Your task to perform on an android device: turn off smart reply in the gmail app Image 0: 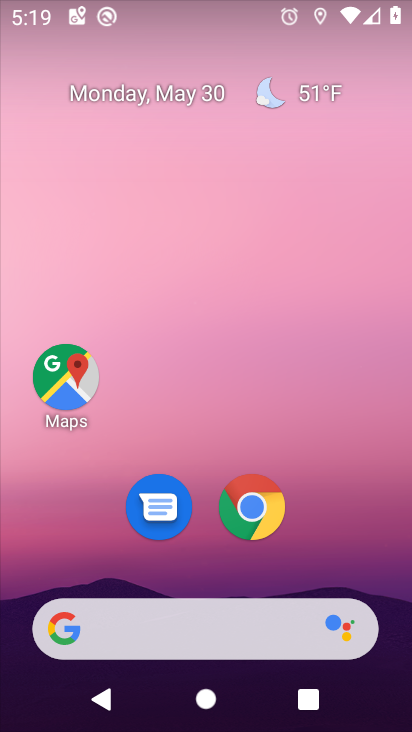
Step 0: drag from (398, 565) to (333, 154)
Your task to perform on an android device: turn off smart reply in the gmail app Image 1: 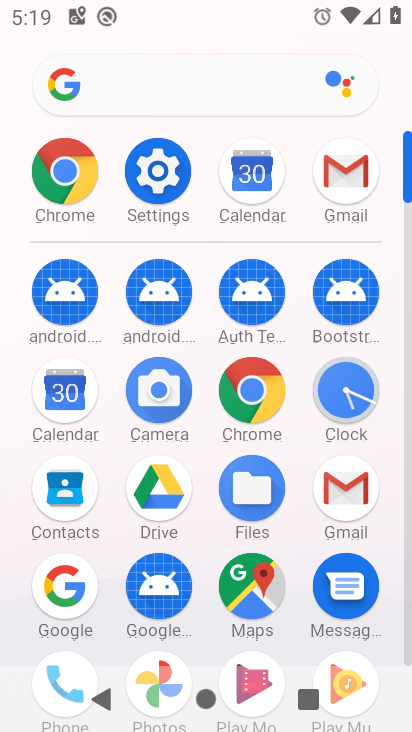
Step 1: click (347, 495)
Your task to perform on an android device: turn off smart reply in the gmail app Image 2: 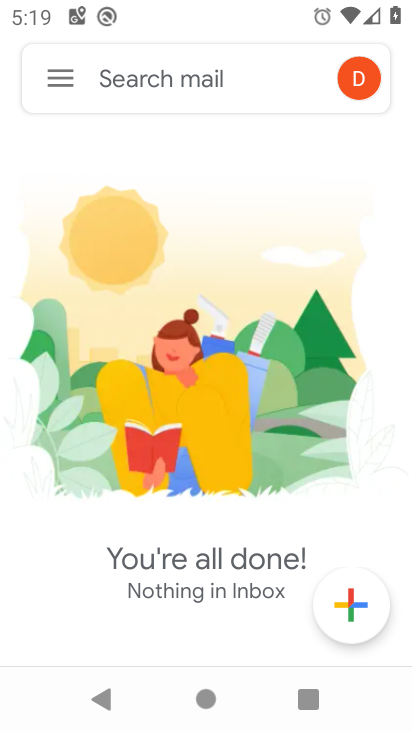
Step 2: click (66, 100)
Your task to perform on an android device: turn off smart reply in the gmail app Image 3: 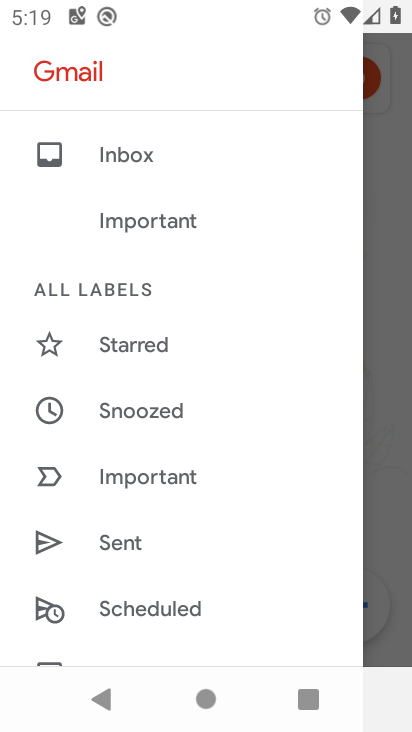
Step 3: drag from (144, 498) to (131, 145)
Your task to perform on an android device: turn off smart reply in the gmail app Image 4: 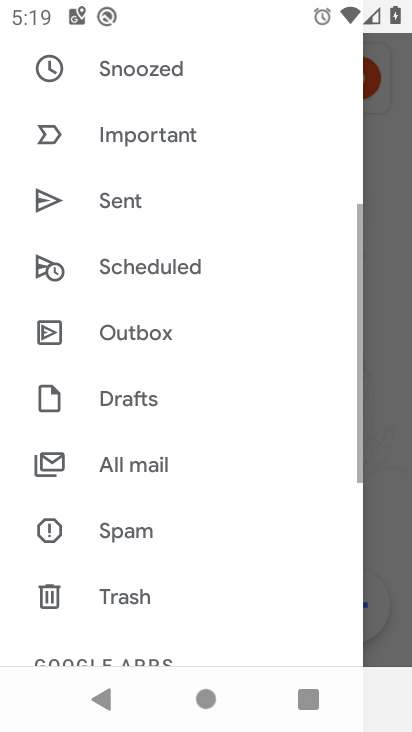
Step 4: drag from (130, 520) to (113, 318)
Your task to perform on an android device: turn off smart reply in the gmail app Image 5: 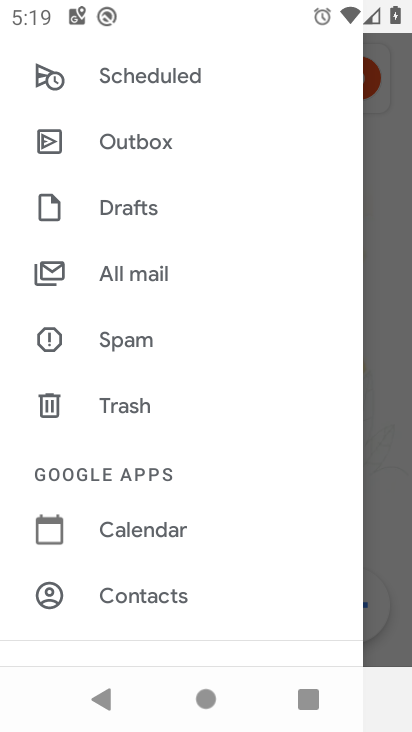
Step 5: drag from (96, 525) to (91, 310)
Your task to perform on an android device: turn off smart reply in the gmail app Image 6: 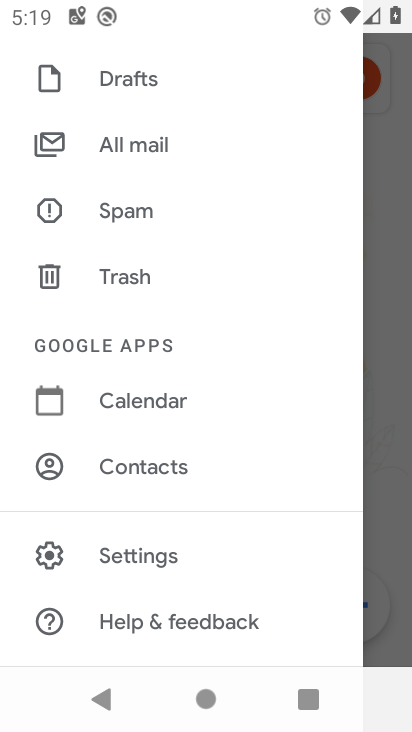
Step 6: click (114, 558)
Your task to perform on an android device: turn off smart reply in the gmail app Image 7: 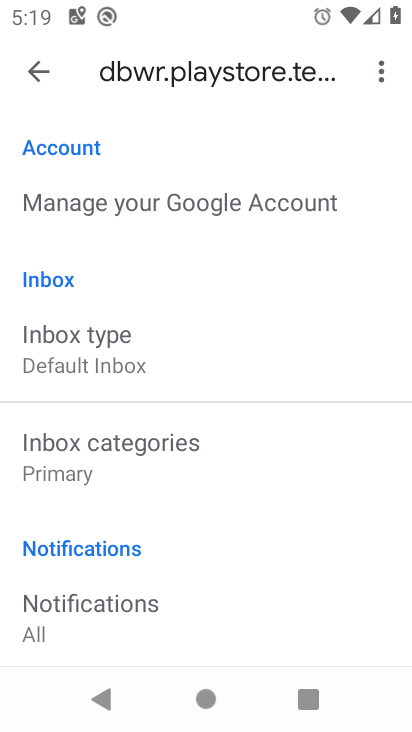
Step 7: drag from (116, 554) to (215, 57)
Your task to perform on an android device: turn off smart reply in the gmail app Image 8: 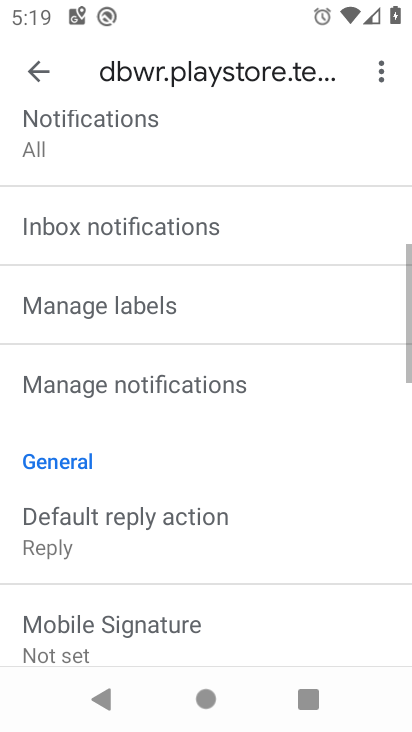
Step 8: drag from (201, 527) to (158, 210)
Your task to perform on an android device: turn off smart reply in the gmail app Image 9: 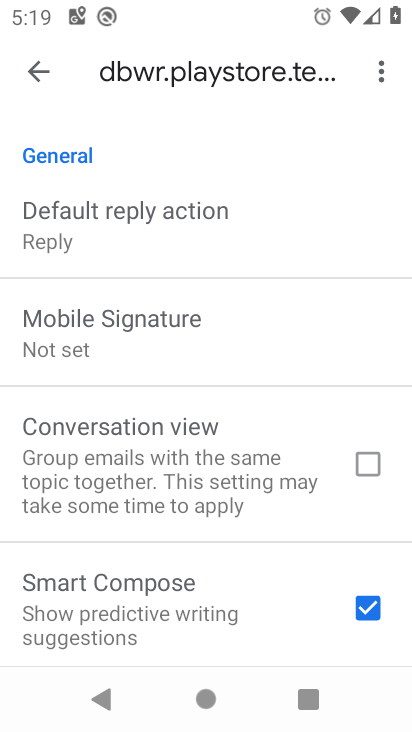
Step 9: drag from (169, 563) to (166, 175)
Your task to perform on an android device: turn off smart reply in the gmail app Image 10: 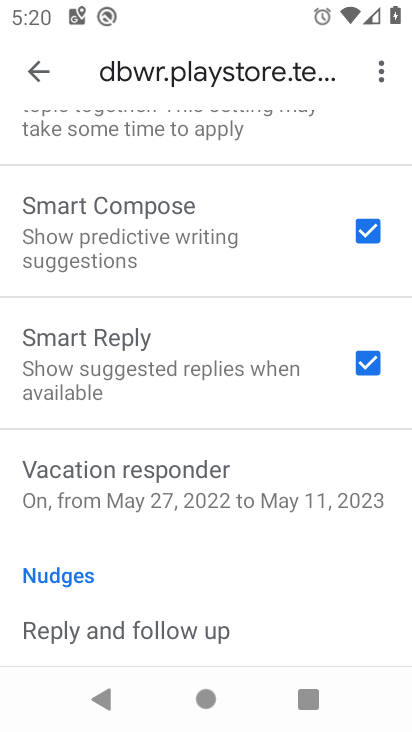
Step 10: click (142, 366)
Your task to perform on an android device: turn off smart reply in the gmail app Image 11: 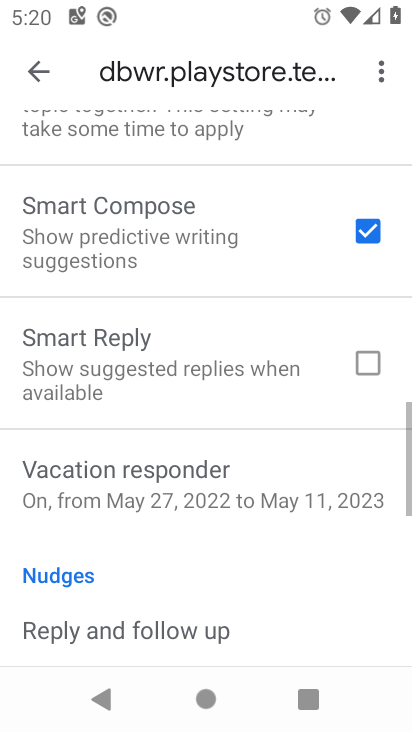
Step 11: task complete